Your task to perform on an android device: Open calendar and show me the fourth week of next month Image 0: 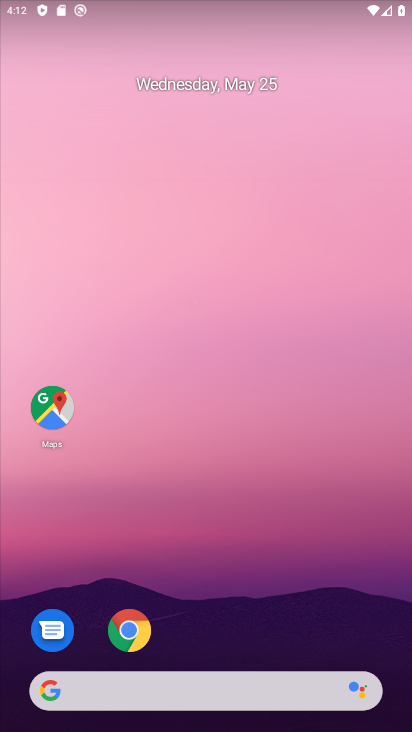
Step 0: drag from (194, 621) to (261, 127)
Your task to perform on an android device: Open calendar and show me the fourth week of next month Image 1: 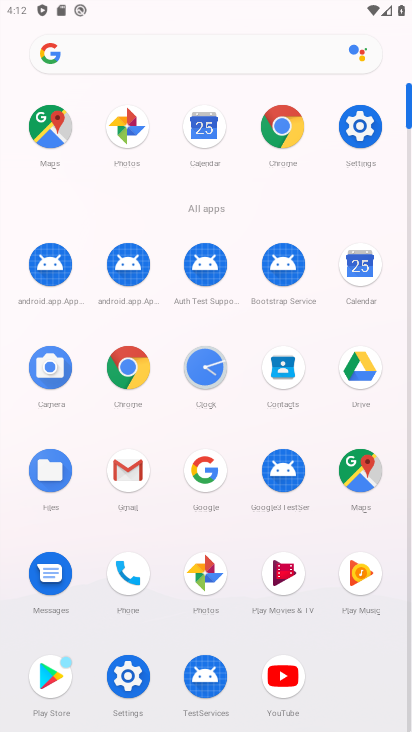
Step 1: click (368, 272)
Your task to perform on an android device: Open calendar and show me the fourth week of next month Image 2: 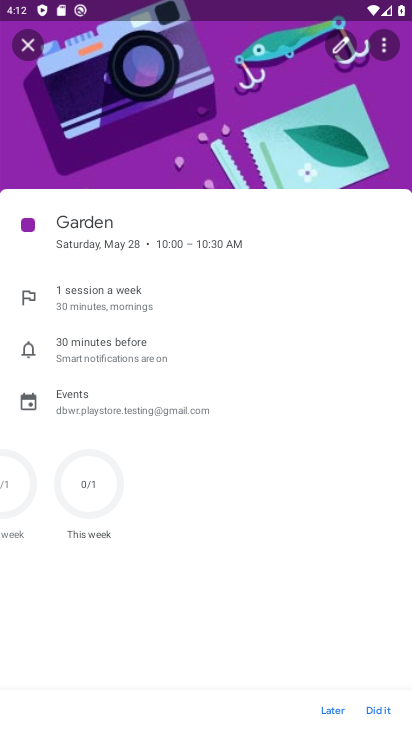
Step 2: click (340, 721)
Your task to perform on an android device: Open calendar and show me the fourth week of next month Image 3: 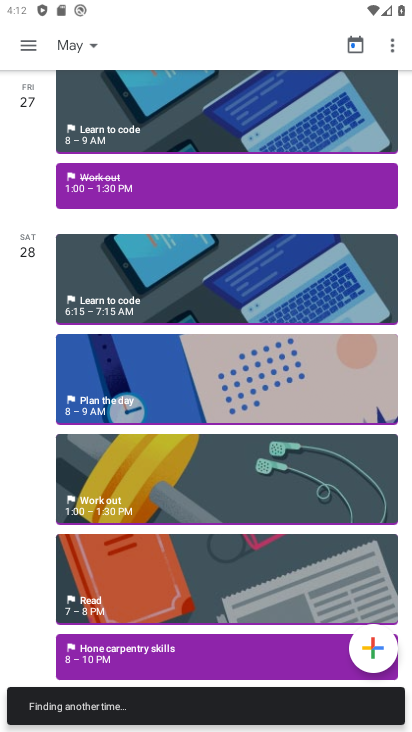
Step 3: click (94, 38)
Your task to perform on an android device: Open calendar and show me the fourth week of next month Image 4: 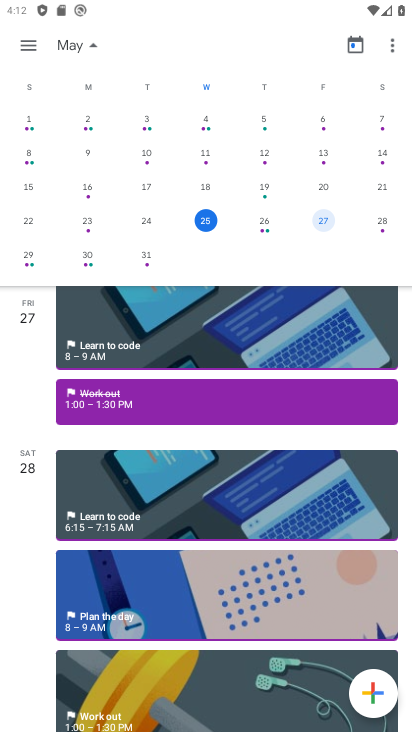
Step 4: drag from (372, 189) to (10, 147)
Your task to perform on an android device: Open calendar and show me the fourth week of next month Image 5: 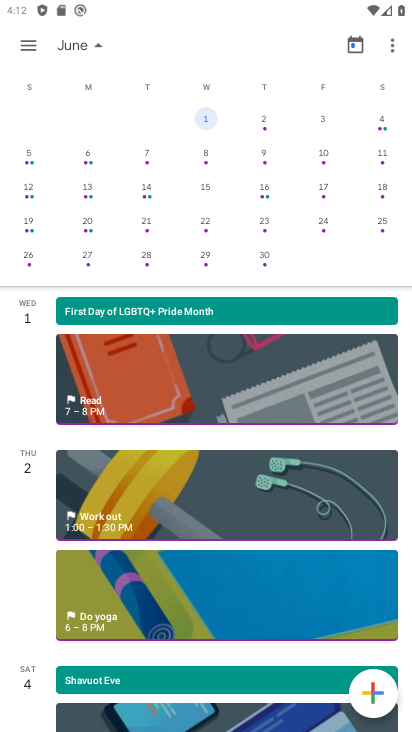
Step 5: click (89, 224)
Your task to perform on an android device: Open calendar and show me the fourth week of next month Image 6: 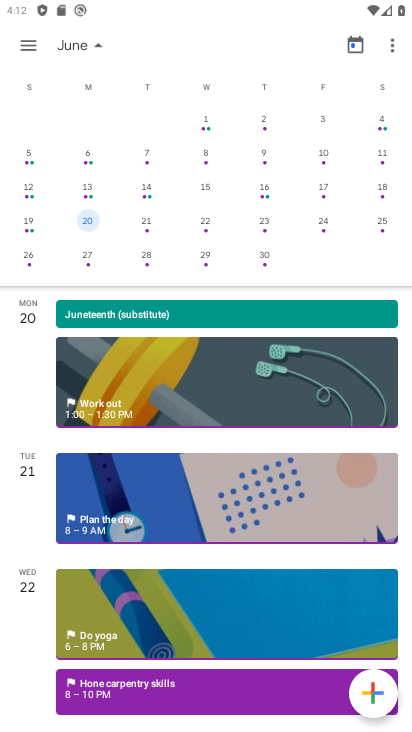
Step 6: task complete